Your task to perform on an android device: Open battery settings Image 0: 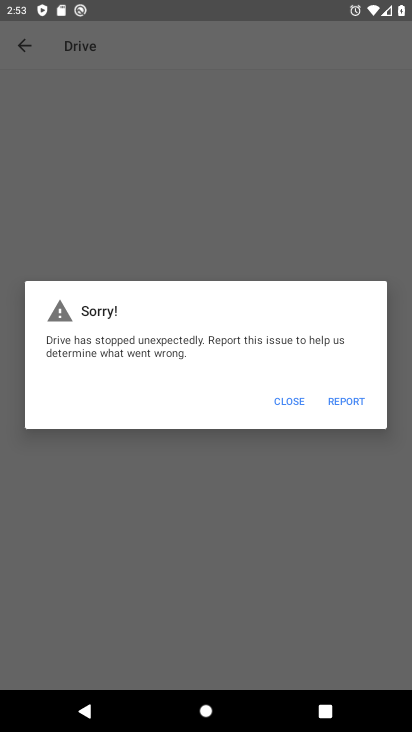
Step 0: press home button
Your task to perform on an android device: Open battery settings Image 1: 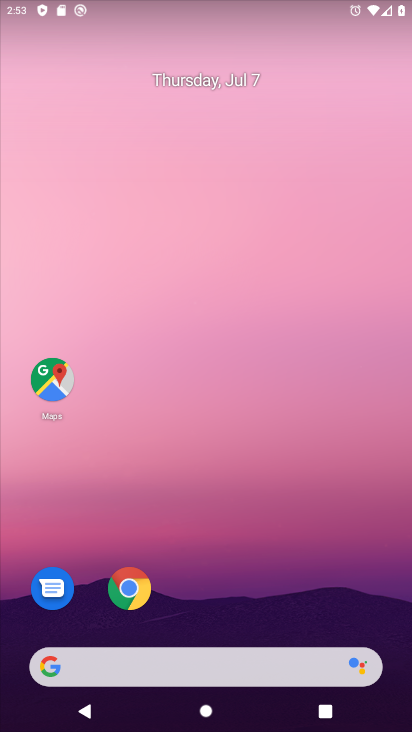
Step 1: drag from (192, 640) to (175, 215)
Your task to perform on an android device: Open battery settings Image 2: 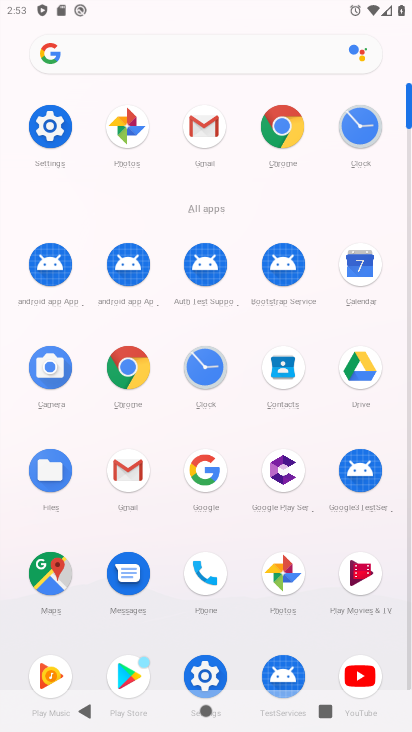
Step 2: click (47, 128)
Your task to perform on an android device: Open battery settings Image 3: 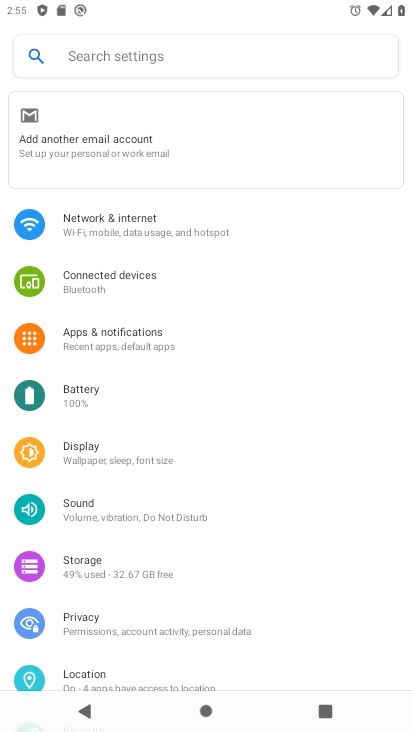
Step 3: click (70, 395)
Your task to perform on an android device: Open battery settings Image 4: 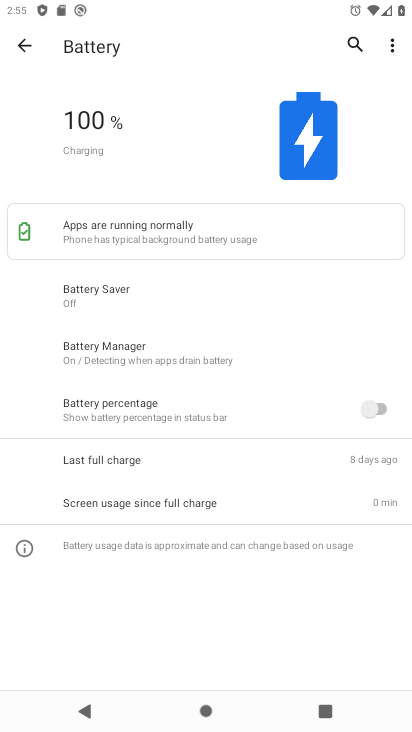
Step 4: task complete